Your task to perform on an android device: Open Yahoo.com Image 0: 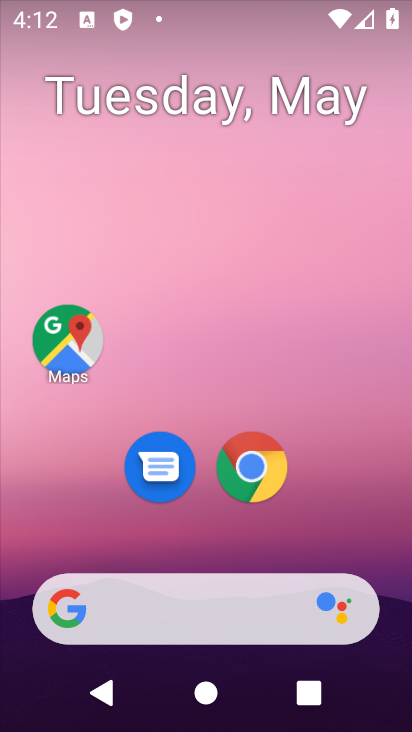
Step 0: press home button
Your task to perform on an android device: Open Yahoo.com Image 1: 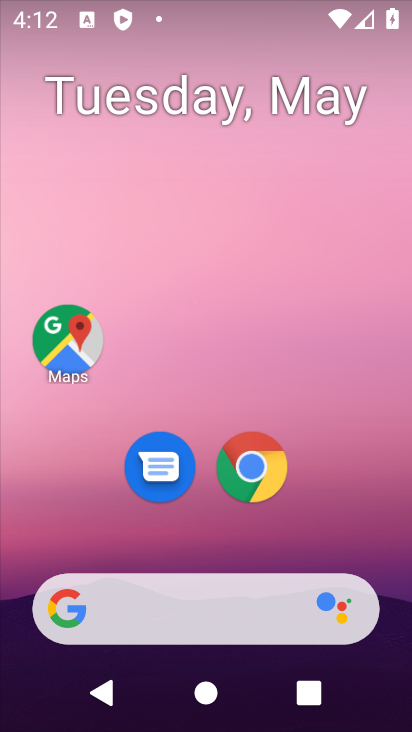
Step 1: click (380, 77)
Your task to perform on an android device: Open Yahoo.com Image 2: 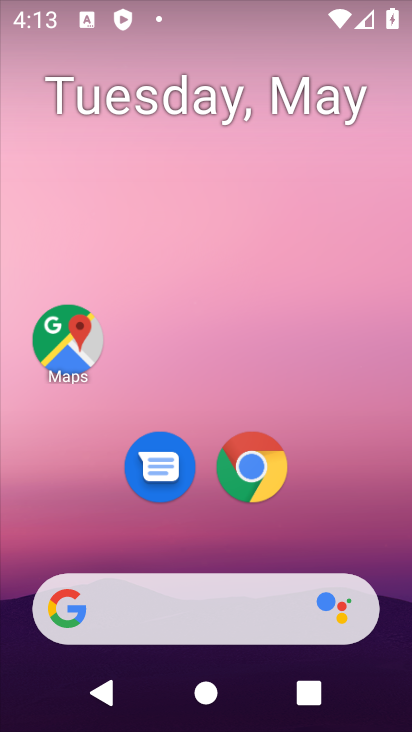
Step 2: click (157, 614)
Your task to perform on an android device: Open Yahoo.com Image 3: 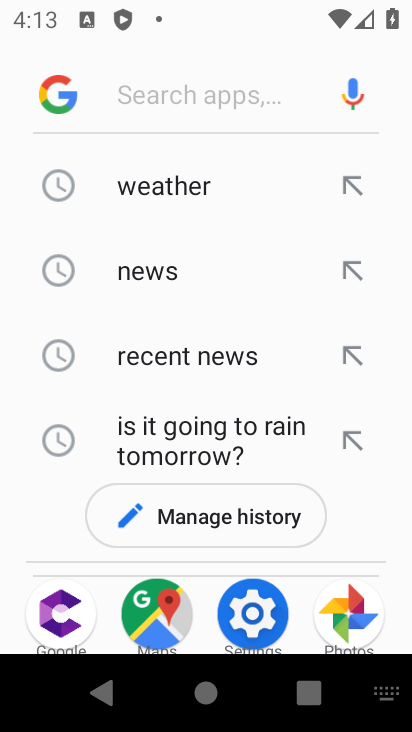
Step 3: type "Yahoo.com"
Your task to perform on an android device: Open Yahoo.com Image 4: 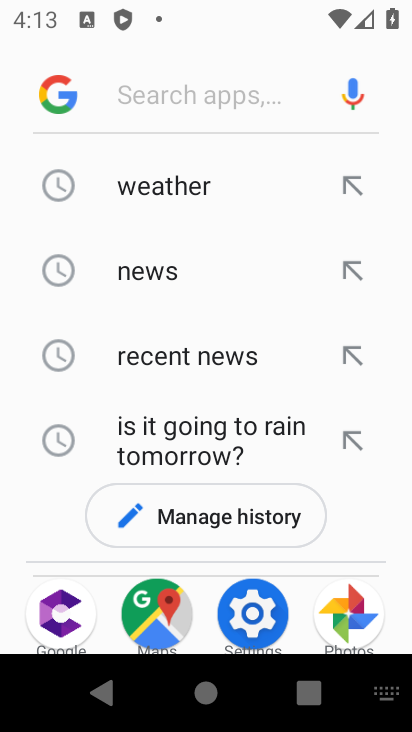
Step 4: click (216, 95)
Your task to perform on an android device: Open Yahoo.com Image 5: 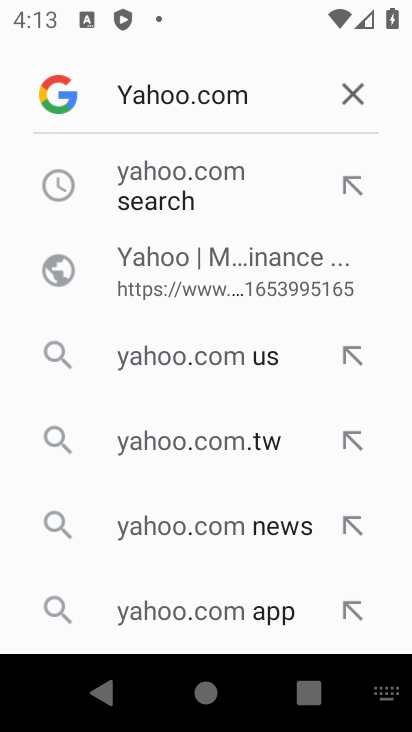
Step 5: click (262, 97)
Your task to perform on an android device: Open Yahoo.com Image 6: 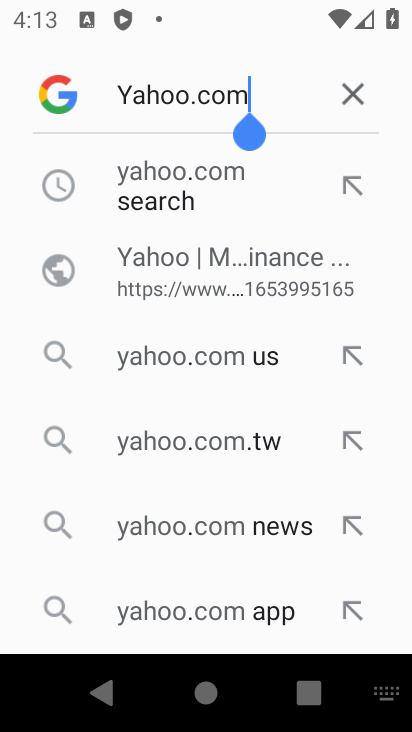
Step 6: click (70, 182)
Your task to perform on an android device: Open Yahoo.com Image 7: 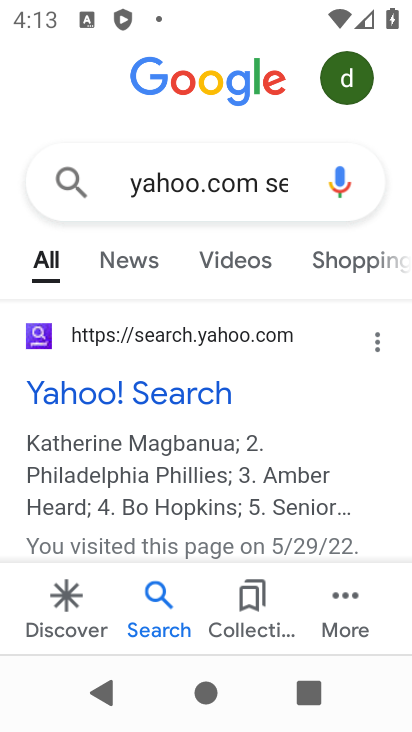
Step 7: click (152, 393)
Your task to perform on an android device: Open Yahoo.com Image 8: 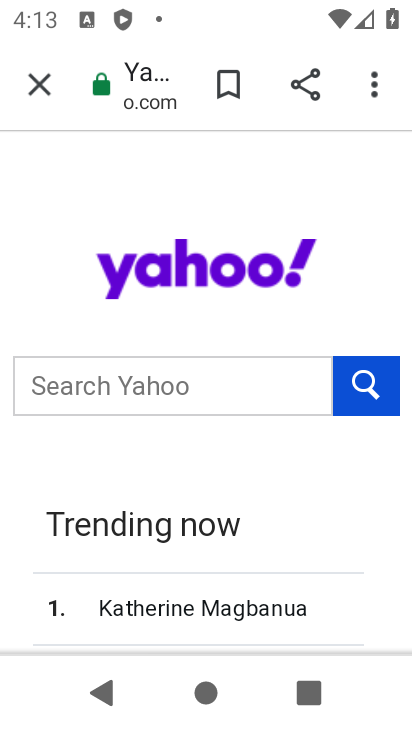
Step 8: task complete